Your task to perform on an android device: Open wifi settings Image 0: 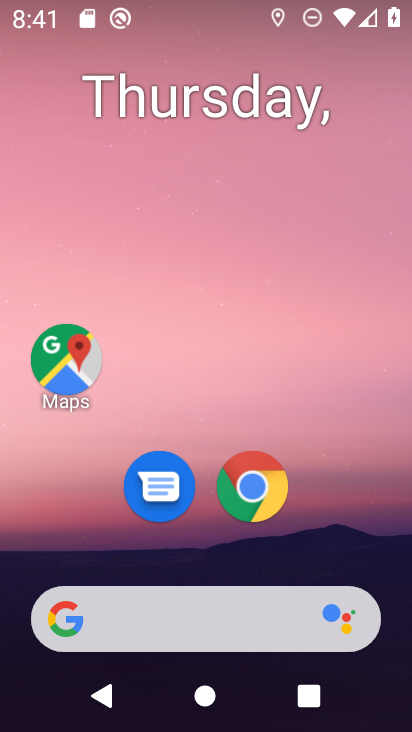
Step 0: drag from (154, 62) to (209, 582)
Your task to perform on an android device: Open wifi settings Image 1: 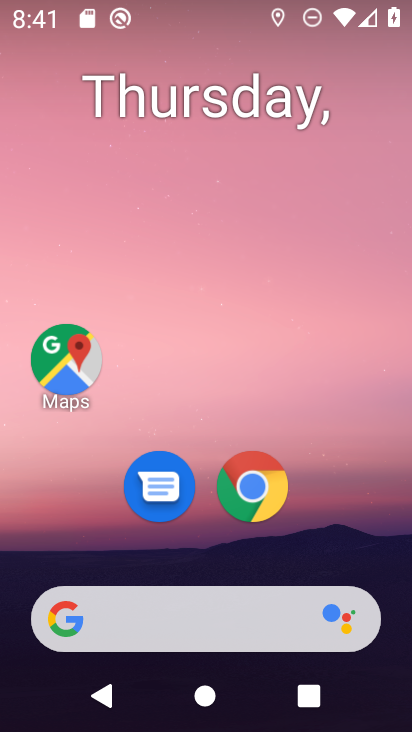
Step 1: drag from (142, 8) to (55, 561)
Your task to perform on an android device: Open wifi settings Image 2: 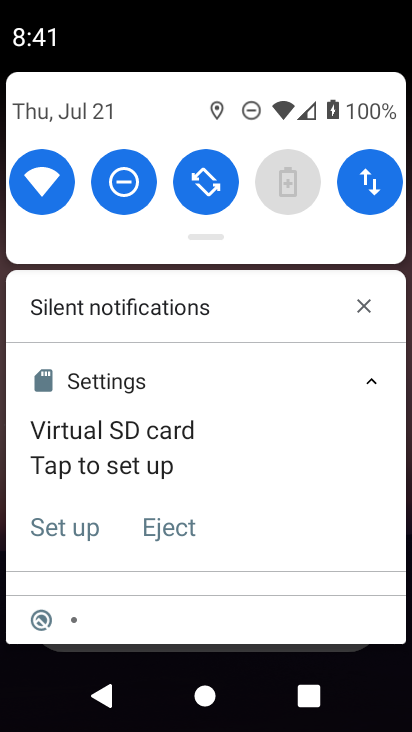
Step 2: click (30, 190)
Your task to perform on an android device: Open wifi settings Image 3: 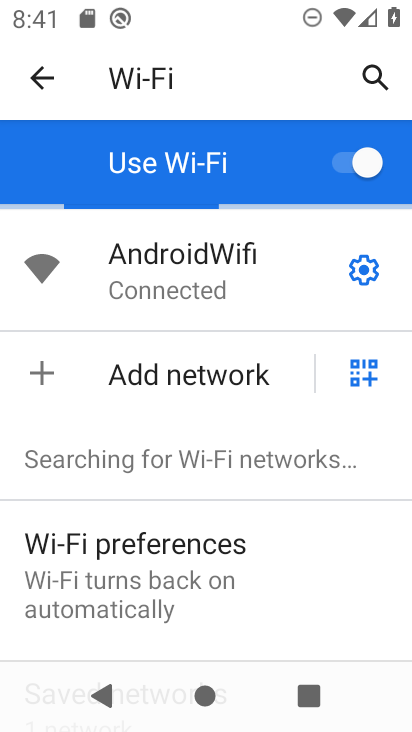
Step 3: task complete